Your task to perform on an android device: check android version Image 0: 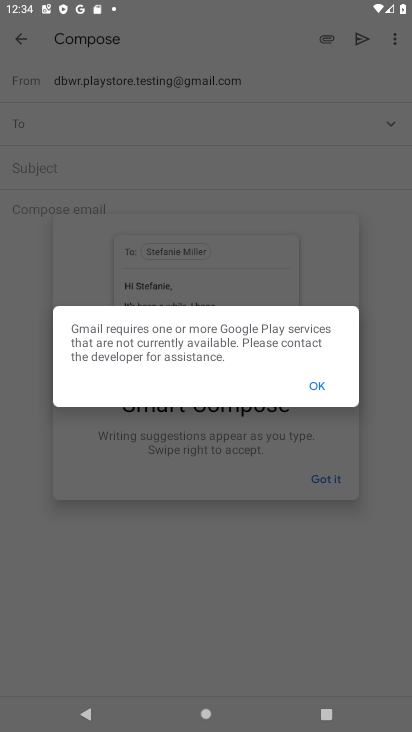
Step 0: press home button
Your task to perform on an android device: check android version Image 1: 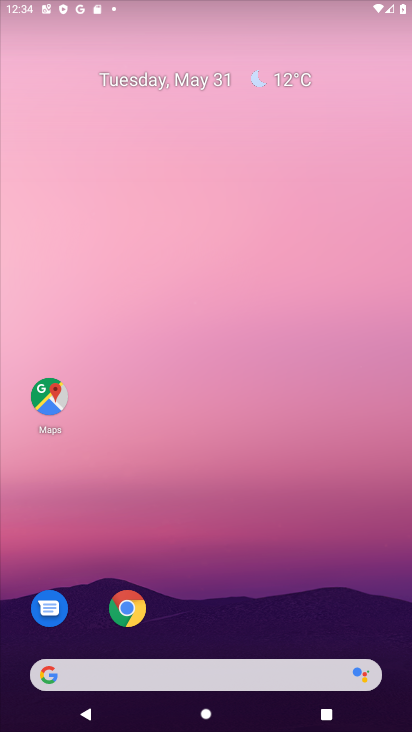
Step 1: drag from (230, 585) to (255, 55)
Your task to perform on an android device: check android version Image 2: 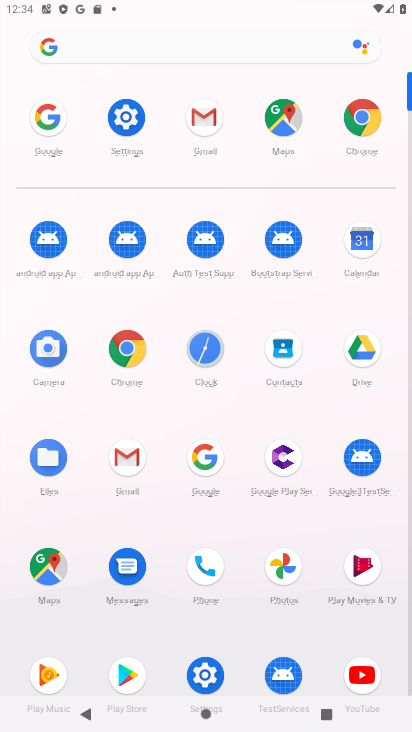
Step 2: click (127, 114)
Your task to perform on an android device: check android version Image 3: 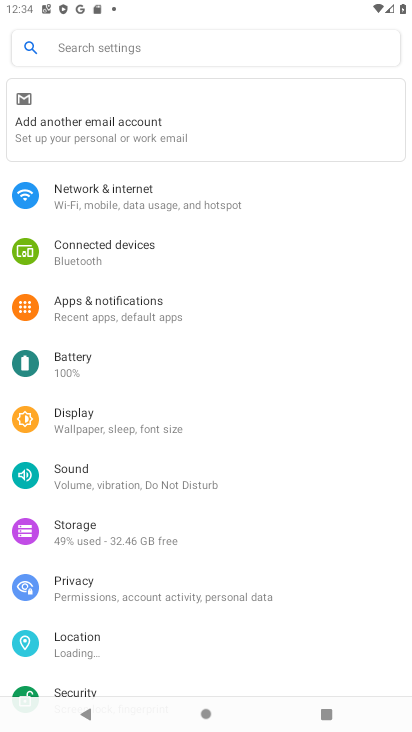
Step 3: drag from (257, 634) to (278, 18)
Your task to perform on an android device: check android version Image 4: 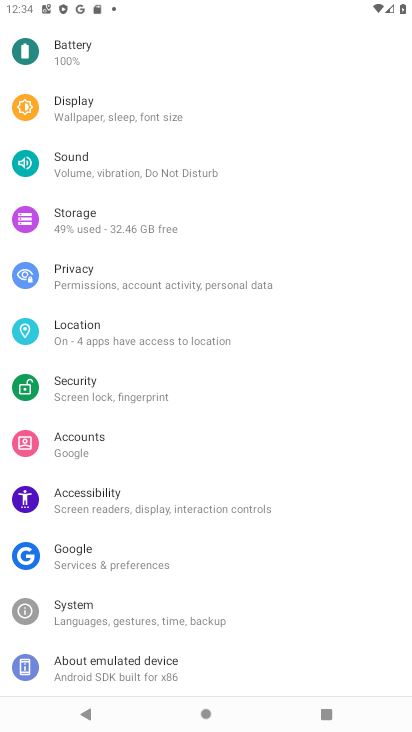
Step 4: click (138, 665)
Your task to perform on an android device: check android version Image 5: 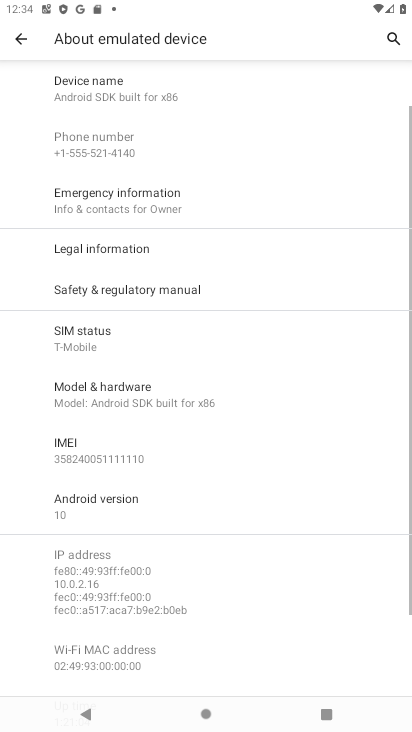
Step 5: click (114, 497)
Your task to perform on an android device: check android version Image 6: 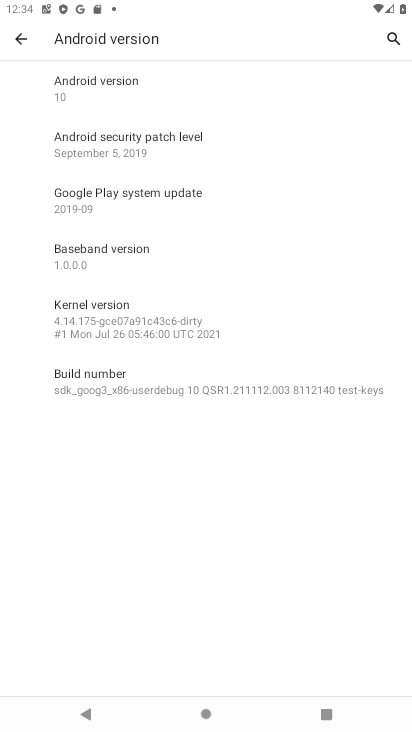
Step 6: task complete